Your task to perform on an android device: toggle show notifications on the lock screen Image 0: 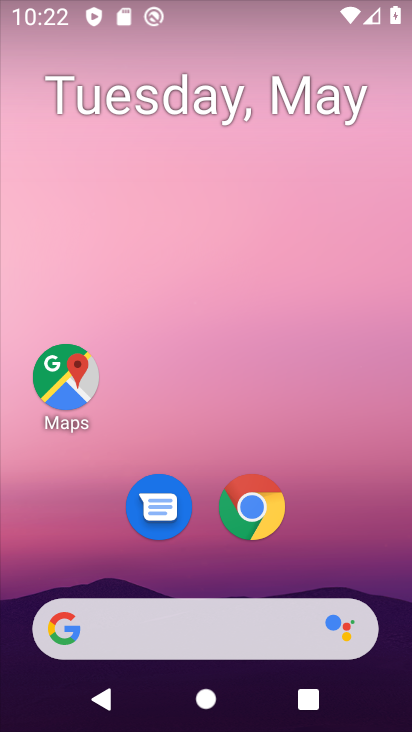
Step 0: drag from (387, 565) to (362, 217)
Your task to perform on an android device: toggle show notifications on the lock screen Image 1: 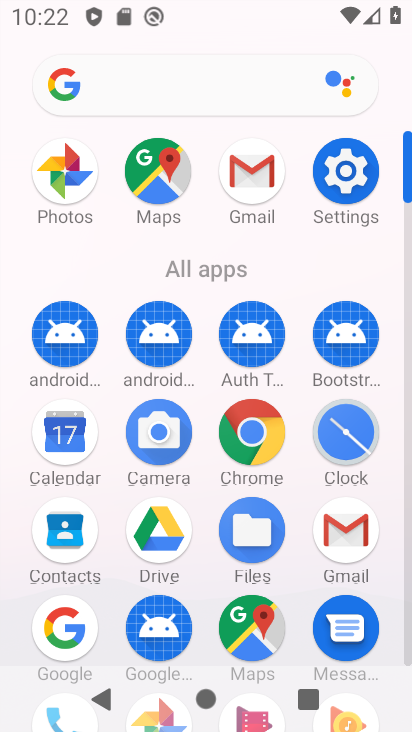
Step 1: click (350, 188)
Your task to perform on an android device: toggle show notifications on the lock screen Image 2: 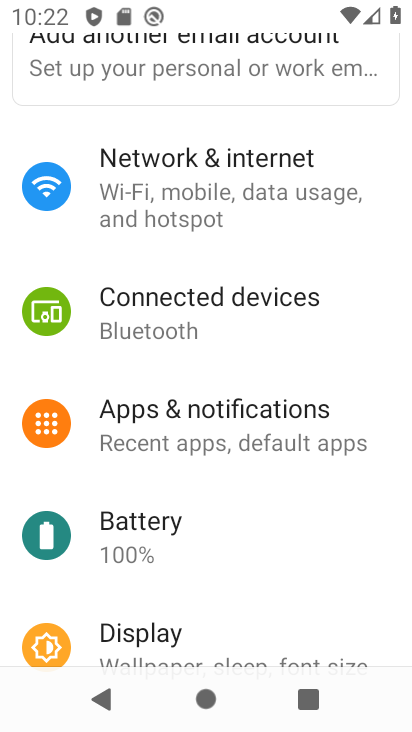
Step 2: drag from (378, 293) to (376, 393)
Your task to perform on an android device: toggle show notifications on the lock screen Image 3: 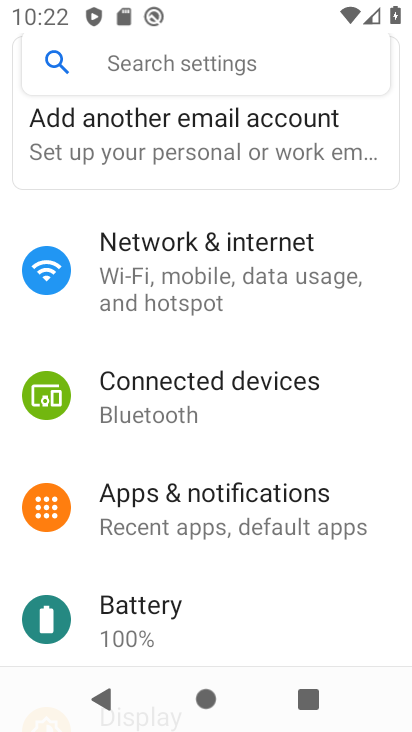
Step 3: drag from (364, 443) to (373, 374)
Your task to perform on an android device: toggle show notifications on the lock screen Image 4: 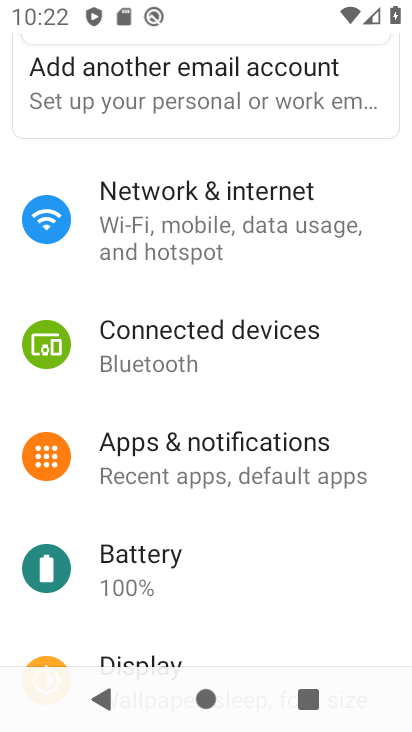
Step 4: drag from (378, 525) to (380, 421)
Your task to perform on an android device: toggle show notifications on the lock screen Image 5: 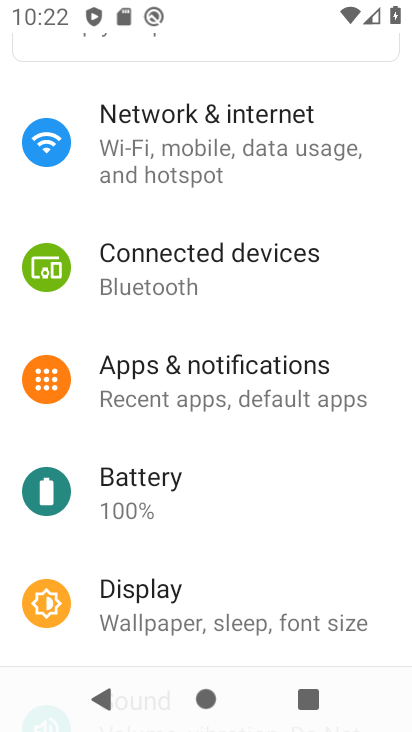
Step 5: drag from (346, 543) to (344, 423)
Your task to perform on an android device: toggle show notifications on the lock screen Image 6: 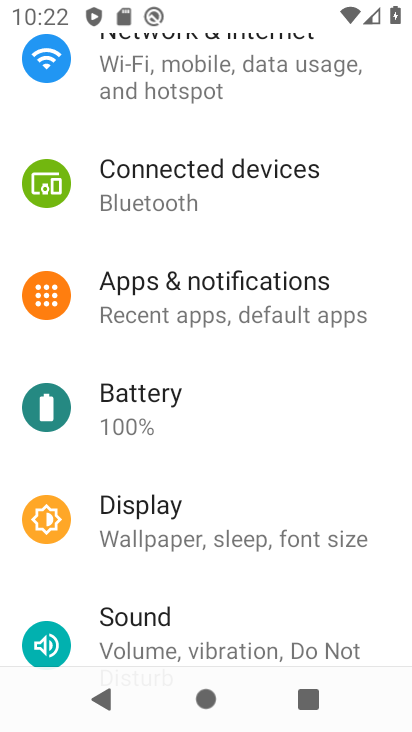
Step 6: drag from (316, 592) to (329, 476)
Your task to perform on an android device: toggle show notifications on the lock screen Image 7: 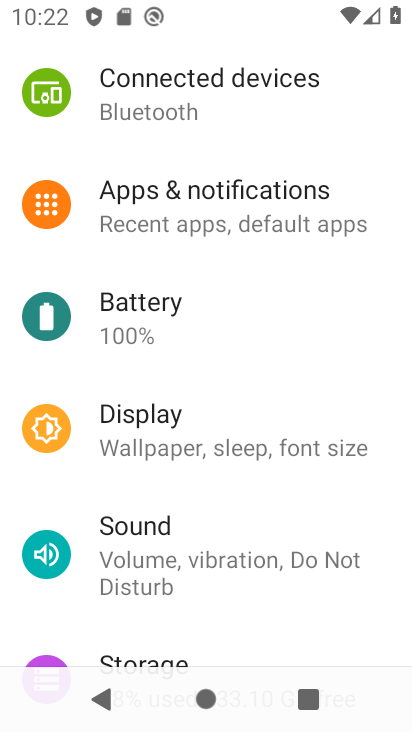
Step 7: click (309, 233)
Your task to perform on an android device: toggle show notifications on the lock screen Image 8: 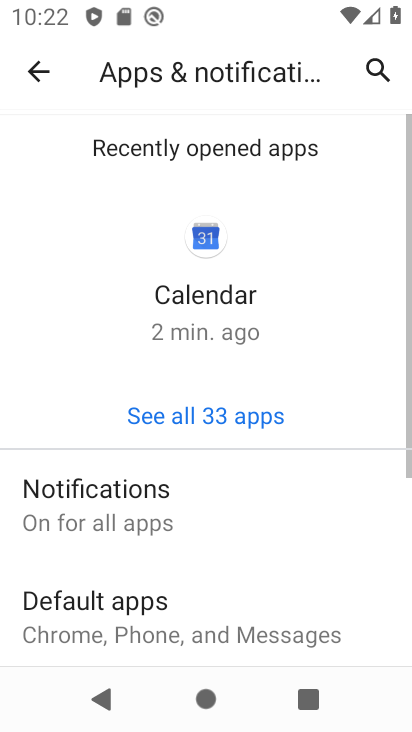
Step 8: drag from (304, 549) to (321, 443)
Your task to perform on an android device: toggle show notifications on the lock screen Image 9: 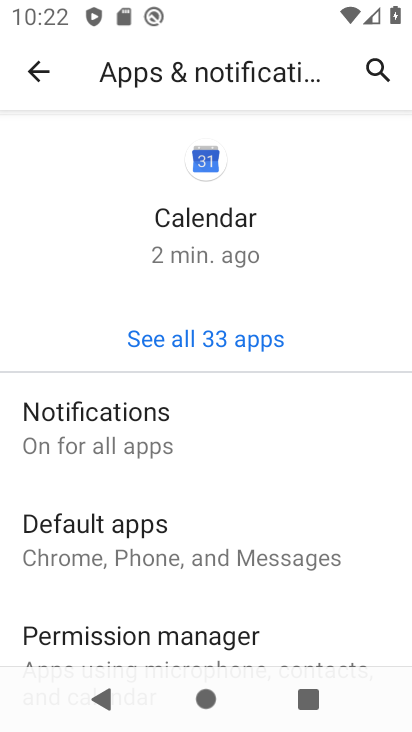
Step 9: drag from (300, 616) to (306, 484)
Your task to perform on an android device: toggle show notifications on the lock screen Image 10: 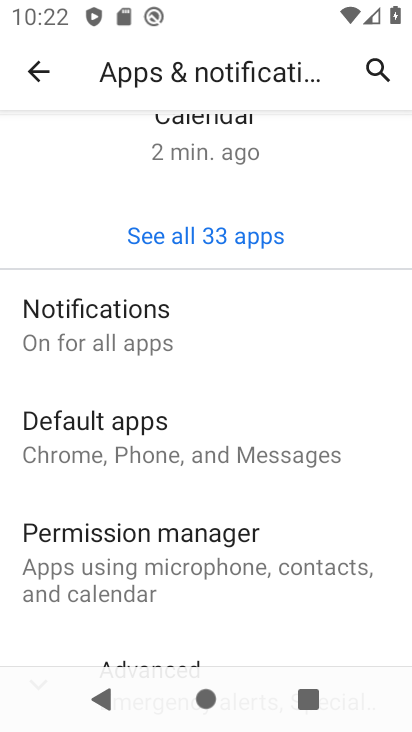
Step 10: click (160, 348)
Your task to perform on an android device: toggle show notifications on the lock screen Image 11: 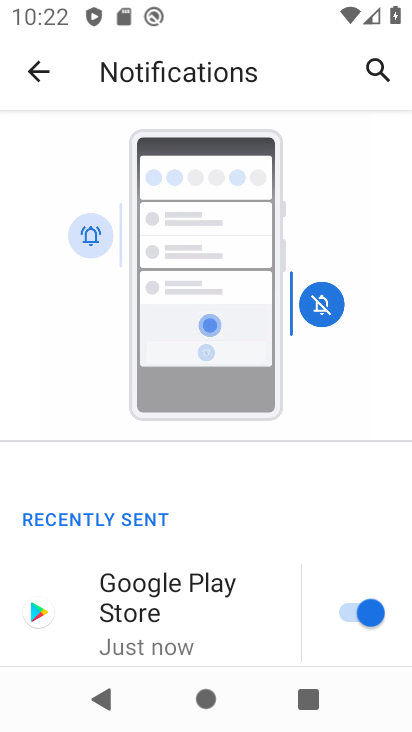
Step 11: drag from (278, 557) to (279, 468)
Your task to perform on an android device: toggle show notifications on the lock screen Image 12: 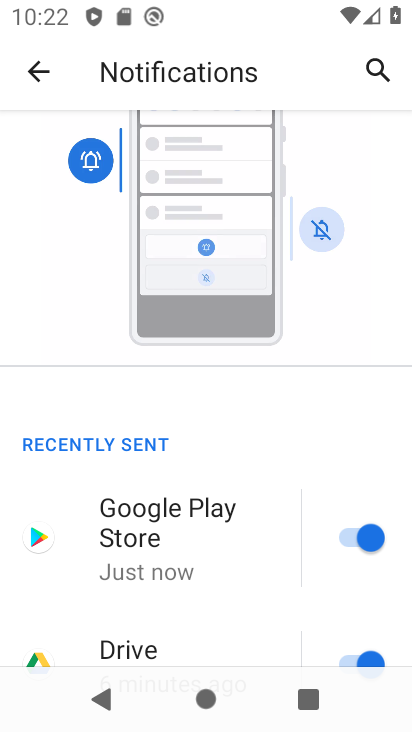
Step 12: drag from (257, 591) to (265, 477)
Your task to perform on an android device: toggle show notifications on the lock screen Image 13: 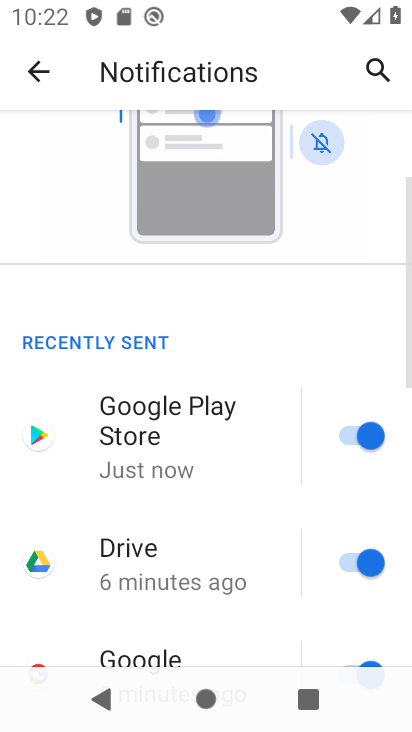
Step 13: drag from (258, 622) to (261, 503)
Your task to perform on an android device: toggle show notifications on the lock screen Image 14: 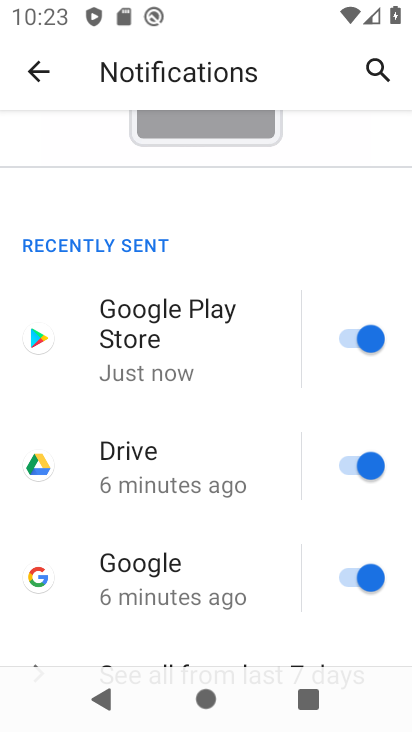
Step 14: drag from (272, 613) to (278, 463)
Your task to perform on an android device: toggle show notifications on the lock screen Image 15: 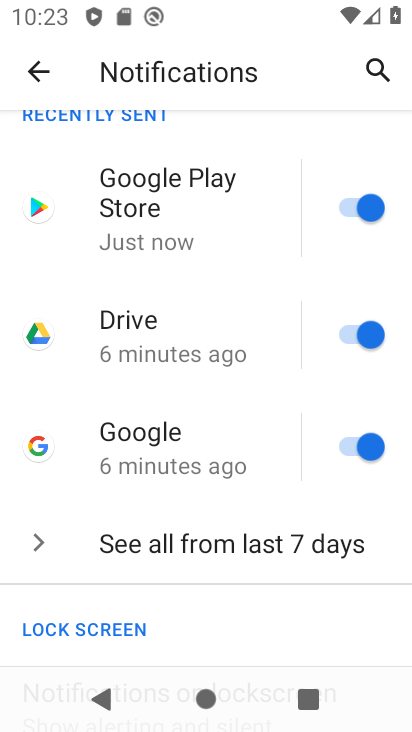
Step 15: drag from (266, 589) to (270, 483)
Your task to perform on an android device: toggle show notifications on the lock screen Image 16: 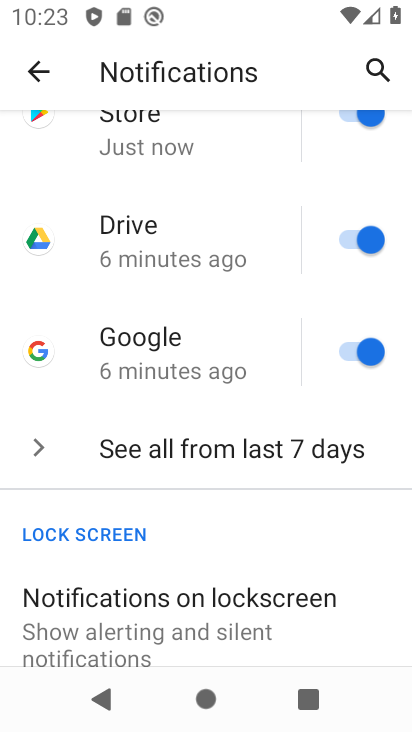
Step 16: drag from (287, 636) to (281, 493)
Your task to perform on an android device: toggle show notifications on the lock screen Image 17: 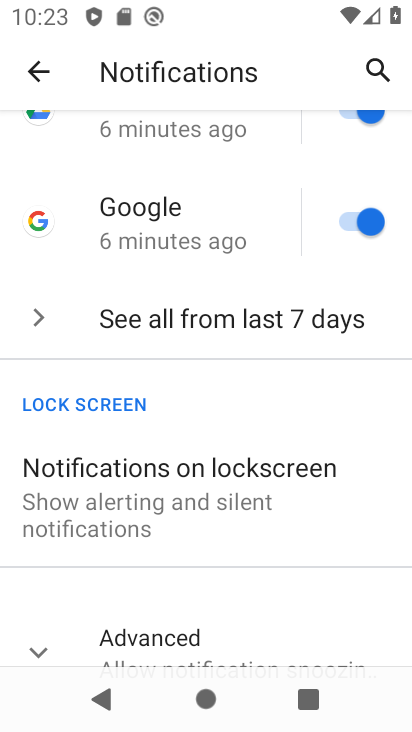
Step 17: drag from (284, 610) to (286, 477)
Your task to perform on an android device: toggle show notifications on the lock screen Image 18: 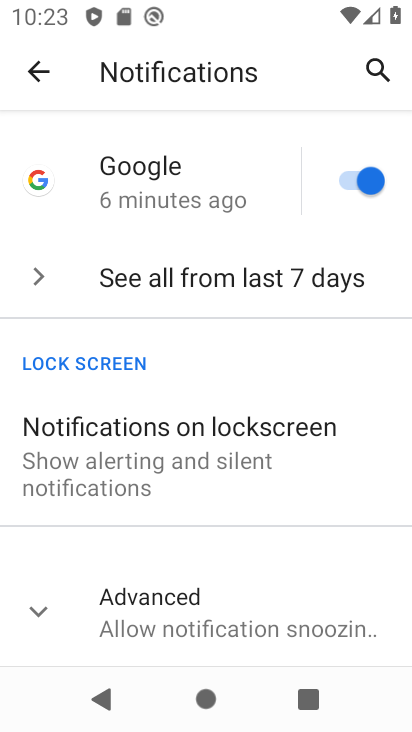
Step 18: click (225, 484)
Your task to perform on an android device: toggle show notifications on the lock screen Image 19: 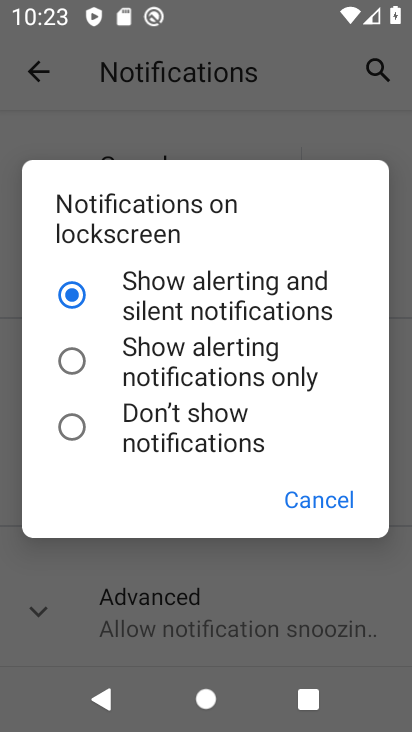
Step 19: click (76, 357)
Your task to perform on an android device: toggle show notifications on the lock screen Image 20: 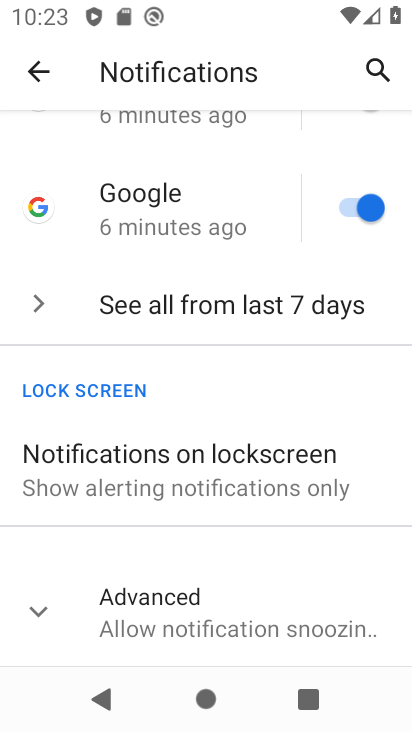
Step 20: task complete